Your task to perform on an android device: Play the last video I watched on Youtube Image 0: 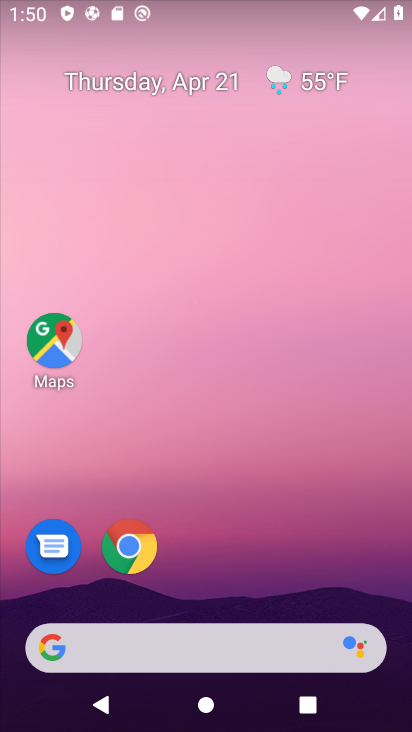
Step 0: drag from (258, 604) to (261, 469)
Your task to perform on an android device: Play the last video I watched on Youtube Image 1: 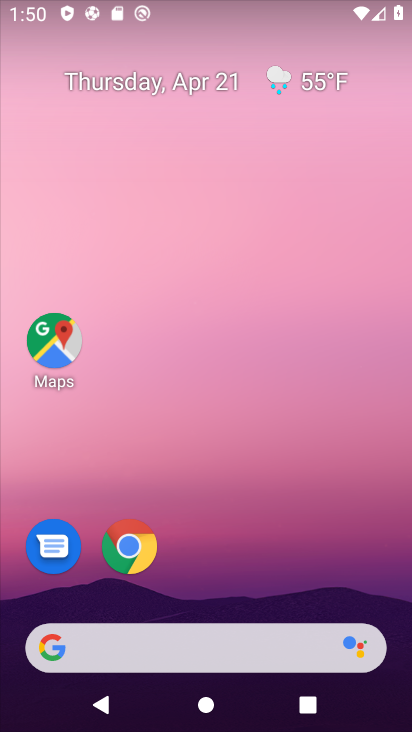
Step 1: drag from (238, 590) to (257, 60)
Your task to perform on an android device: Play the last video I watched on Youtube Image 2: 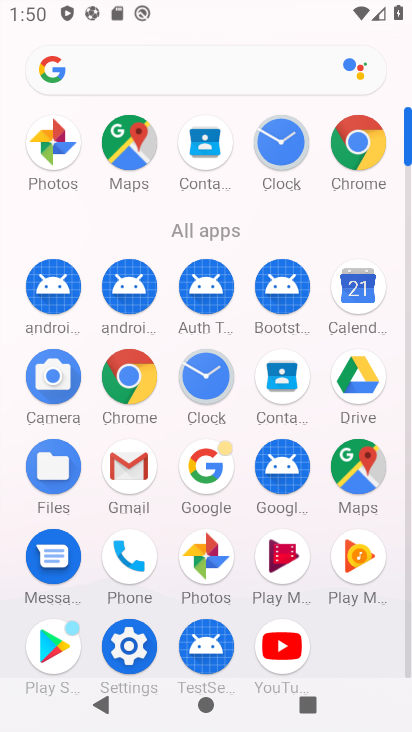
Step 2: click (285, 641)
Your task to perform on an android device: Play the last video I watched on Youtube Image 3: 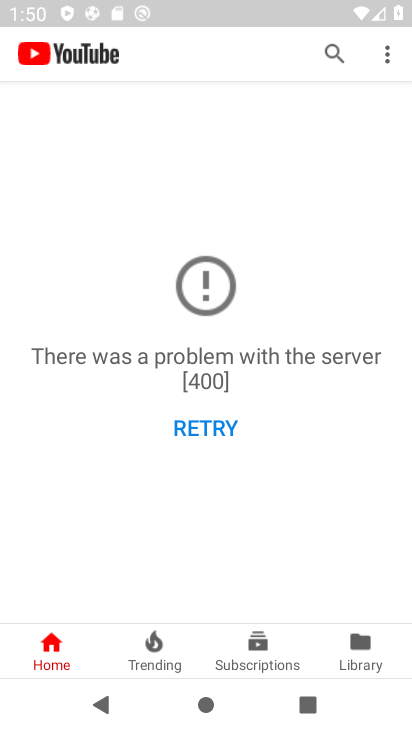
Step 3: click (352, 673)
Your task to perform on an android device: Play the last video I watched on Youtube Image 4: 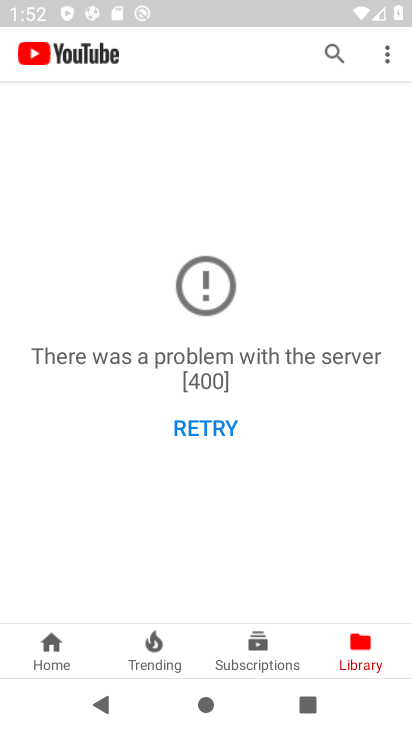
Step 4: task complete